Your task to perform on an android device: toggle airplane mode Image 0: 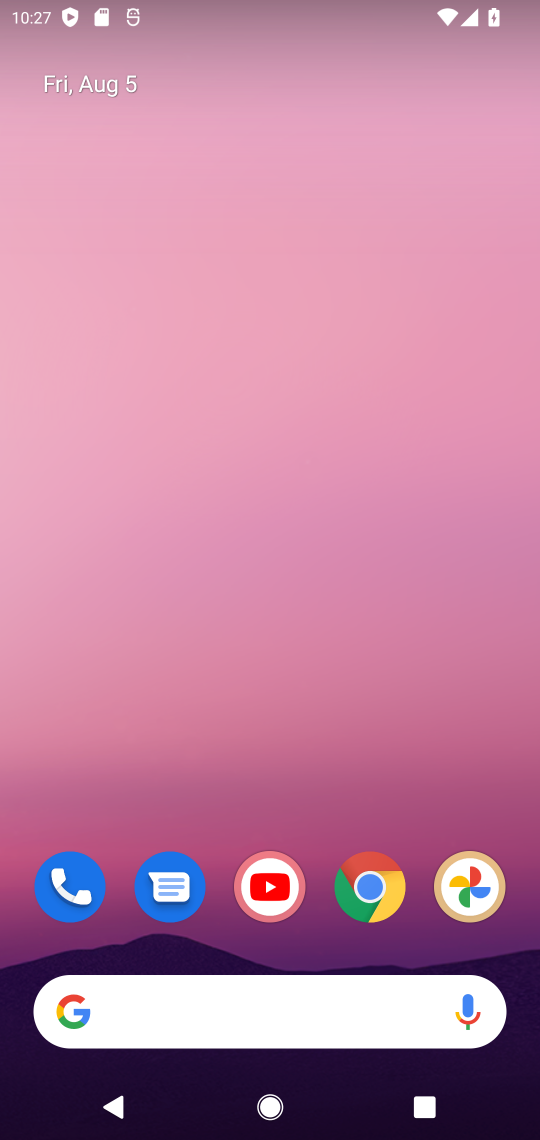
Step 0: press home button
Your task to perform on an android device: toggle airplane mode Image 1: 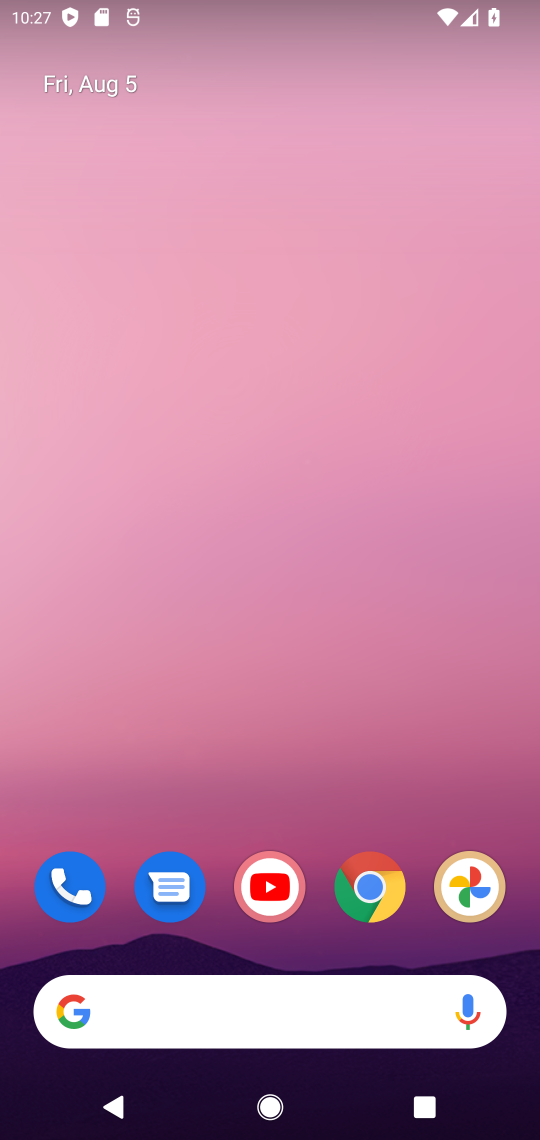
Step 1: drag from (288, 160) to (294, 1107)
Your task to perform on an android device: toggle airplane mode Image 2: 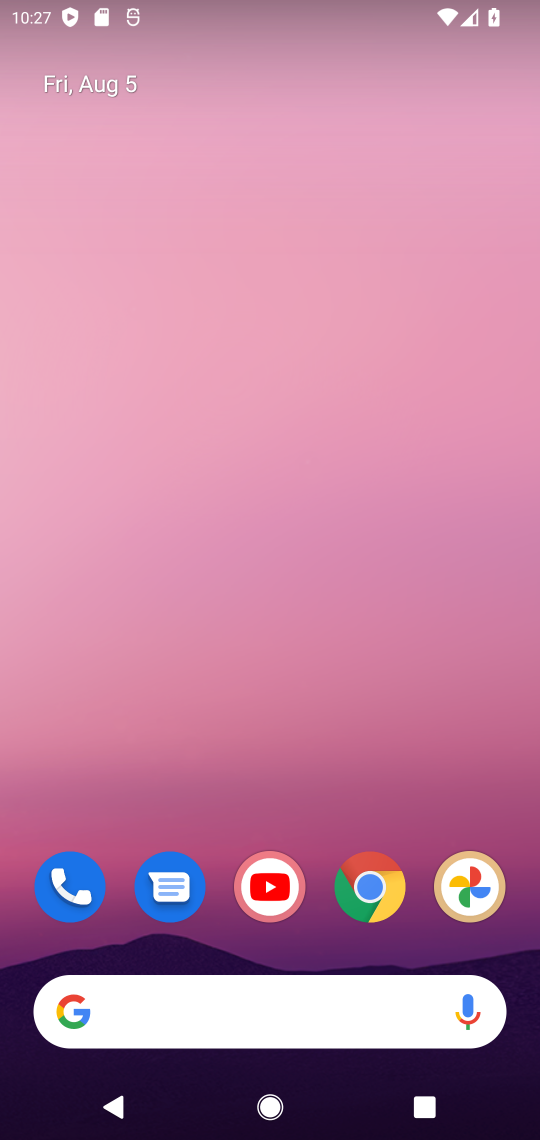
Step 2: drag from (279, 17) to (275, 864)
Your task to perform on an android device: toggle airplane mode Image 3: 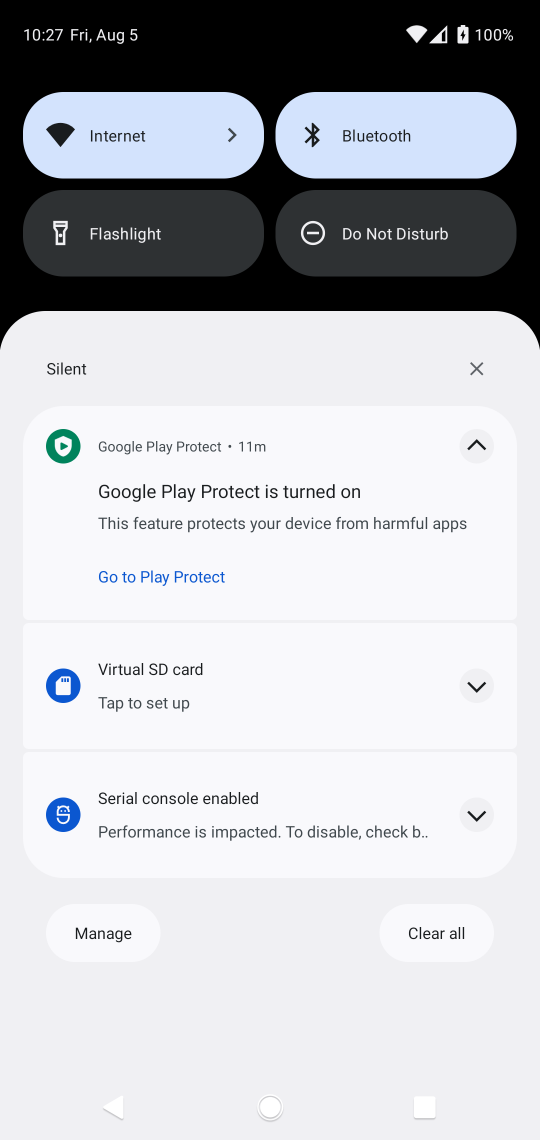
Step 3: drag from (291, 1076) to (279, 769)
Your task to perform on an android device: toggle airplane mode Image 4: 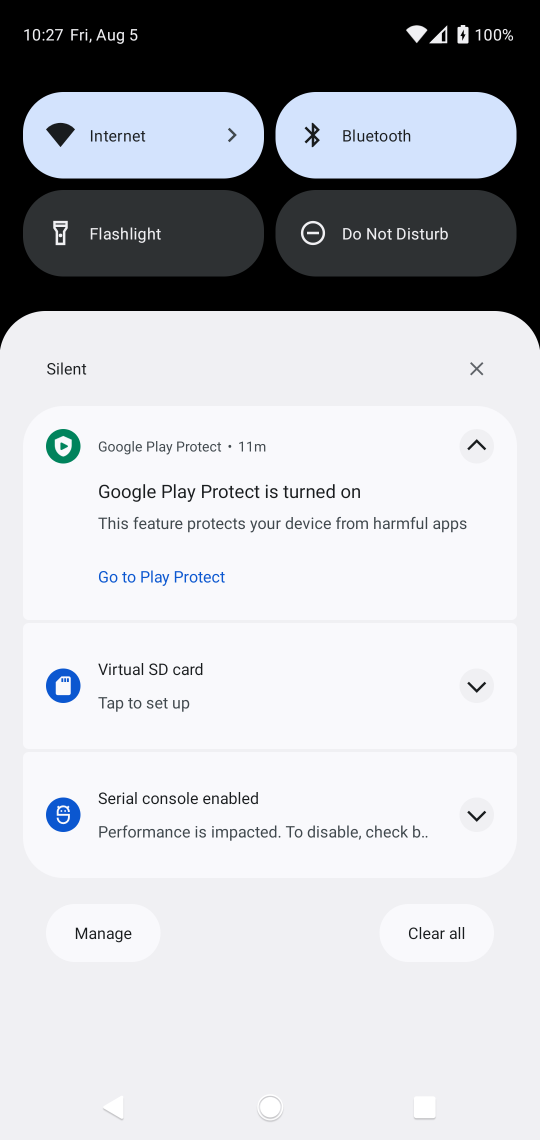
Step 4: drag from (279, 1076) to (188, 302)
Your task to perform on an android device: toggle airplane mode Image 5: 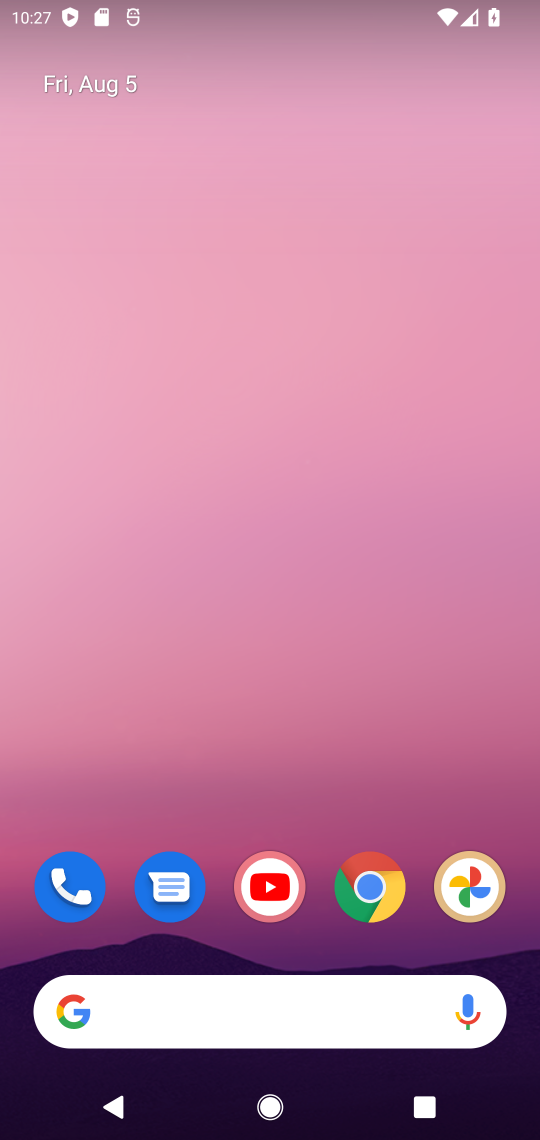
Step 5: drag from (312, 933) to (233, 180)
Your task to perform on an android device: toggle airplane mode Image 6: 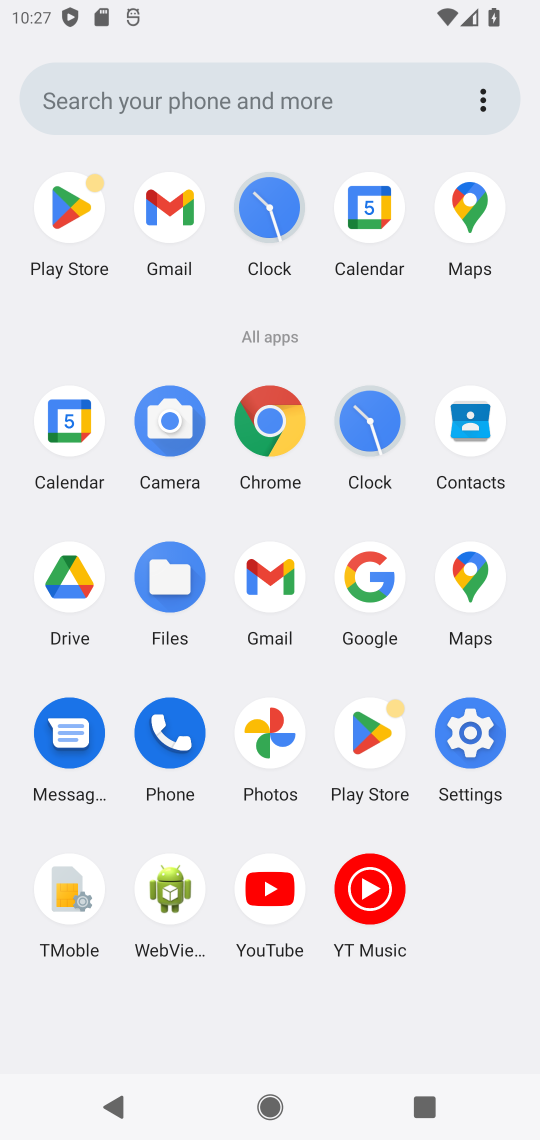
Step 6: click (487, 726)
Your task to perform on an android device: toggle airplane mode Image 7: 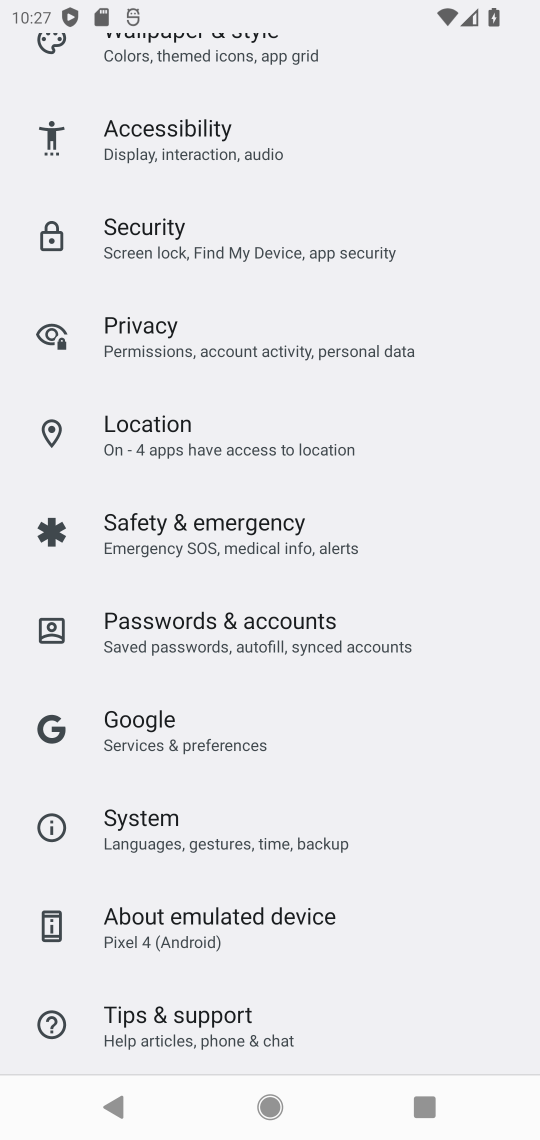
Step 7: drag from (413, 158) to (361, 1015)
Your task to perform on an android device: toggle airplane mode Image 8: 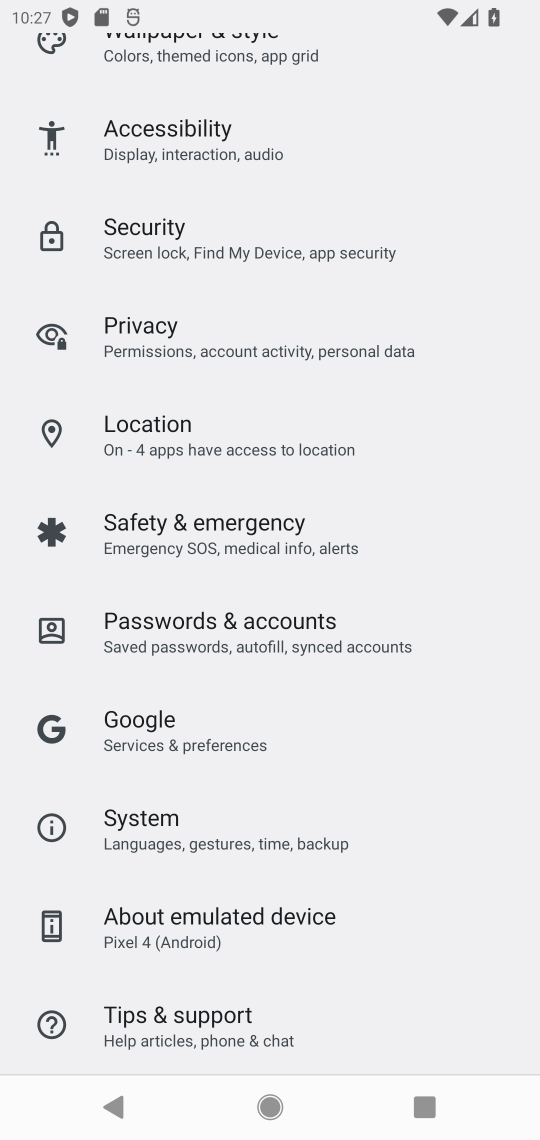
Step 8: drag from (419, 328) to (341, 1100)
Your task to perform on an android device: toggle airplane mode Image 9: 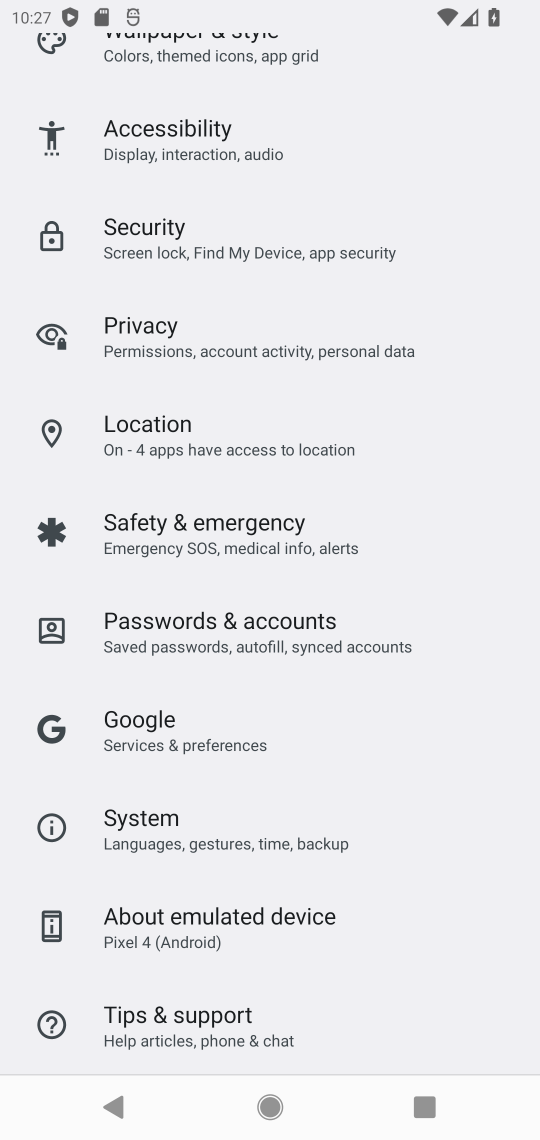
Step 9: drag from (375, 177) to (299, 912)
Your task to perform on an android device: toggle airplane mode Image 10: 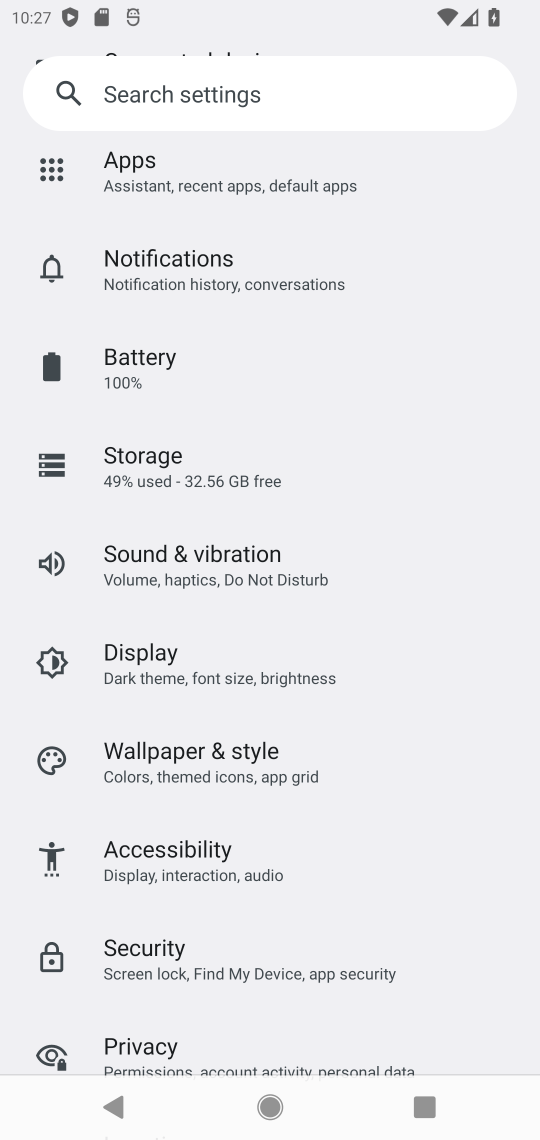
Step 10: drag from (258, 327) to (328, 948)
Your task to perform on an android device: toggle airplane mode Image 11: 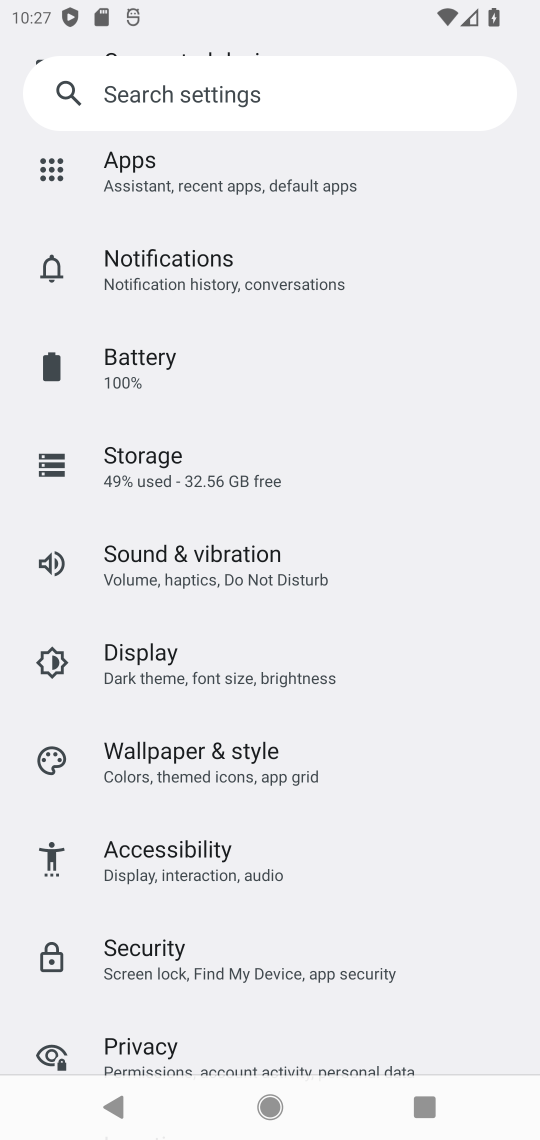
Step 11: drag from (338, 222) to (439, 1033)
Your task to perform on an android device: toggle airplane mode Image 12: 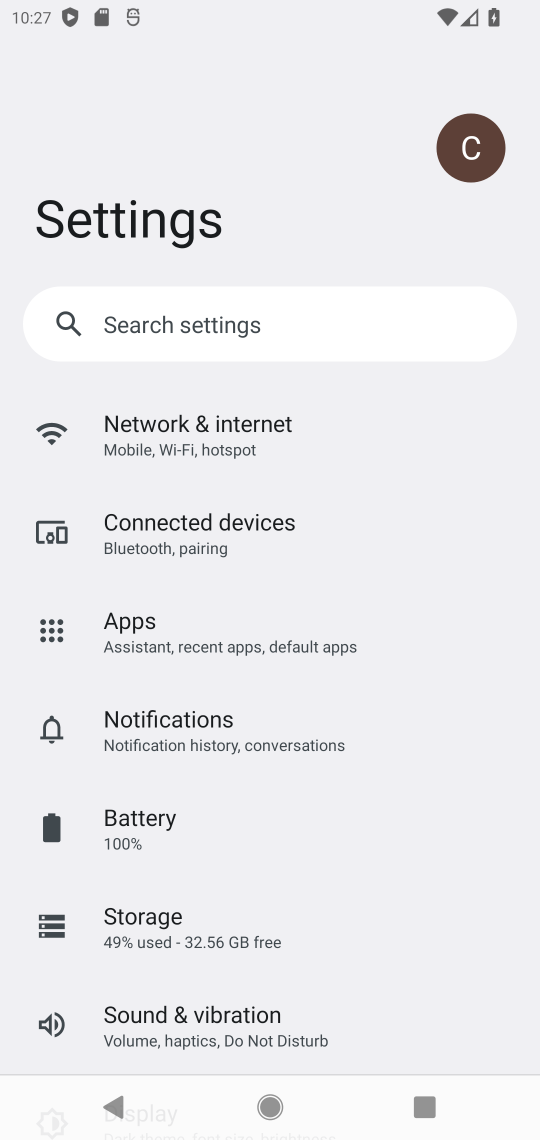
Step 12: click (180, 431)
Your task to perform on an android device: toggle airplane mode Image 13: 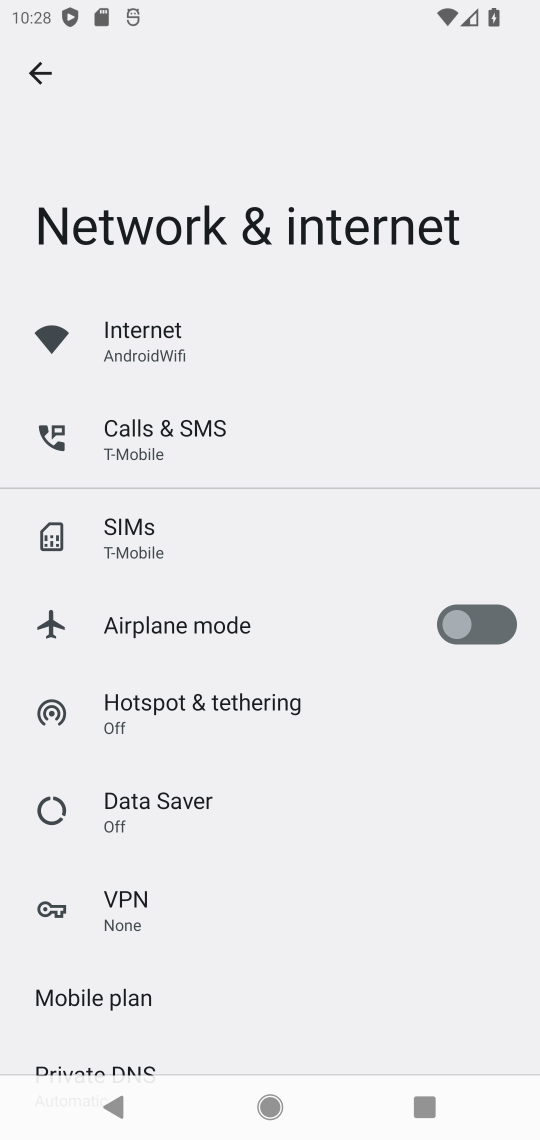
Step 13: click (463, 615)
Your task to perform on an android device: toggle airplane mode Image 14: 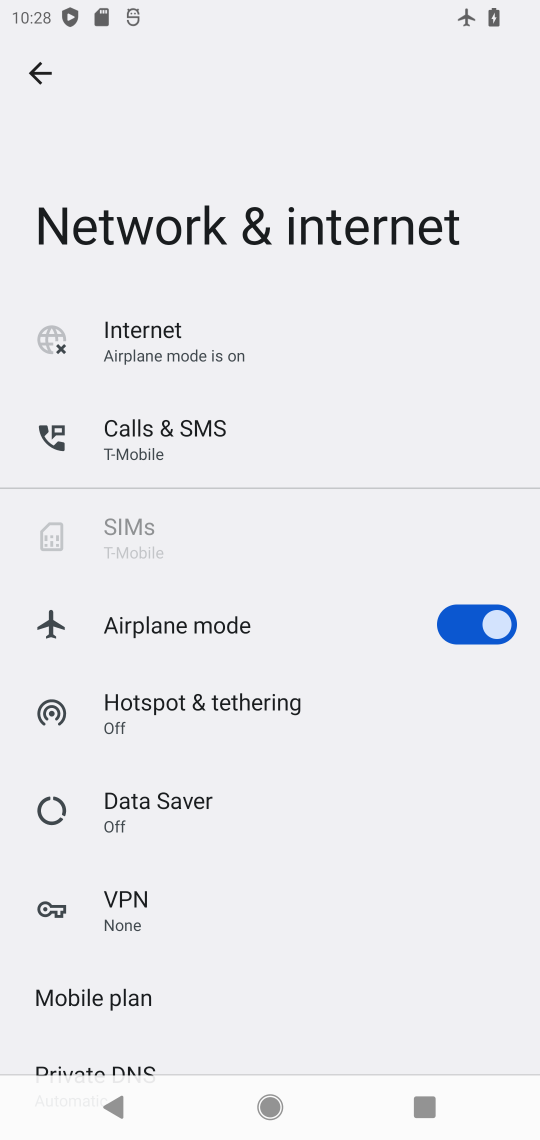
Step 14: task complete